Your task to perform on an android device: Open Amazon Image 0: 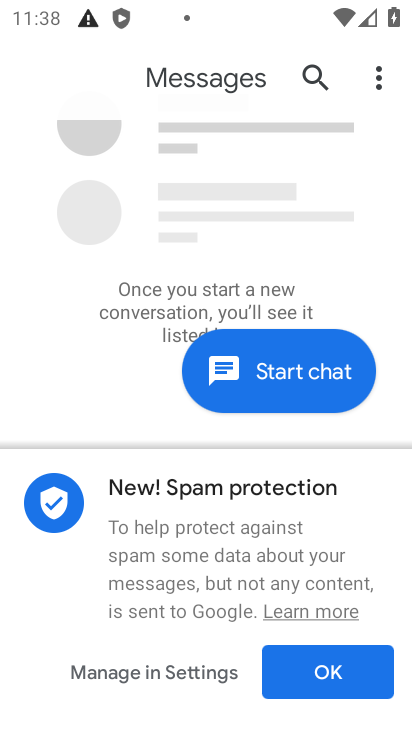
Step 0: click (252, 559)
Your task to perform on an android device: Open Amazon Image 1: 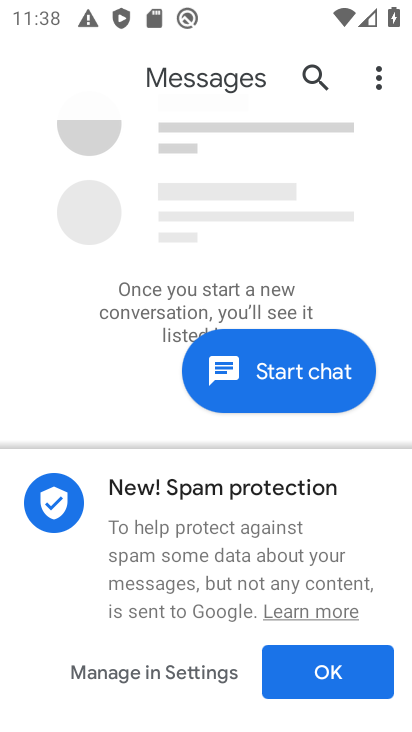
Step 1: press home button
Your task to perform on an android device: Open Amazon Image 2: 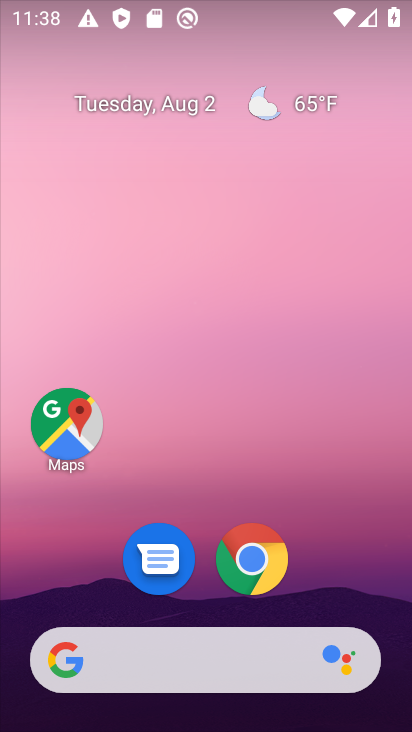
Step 2: click (248, 559)
Your task to perform on an android device: Open Amazon Image 3: 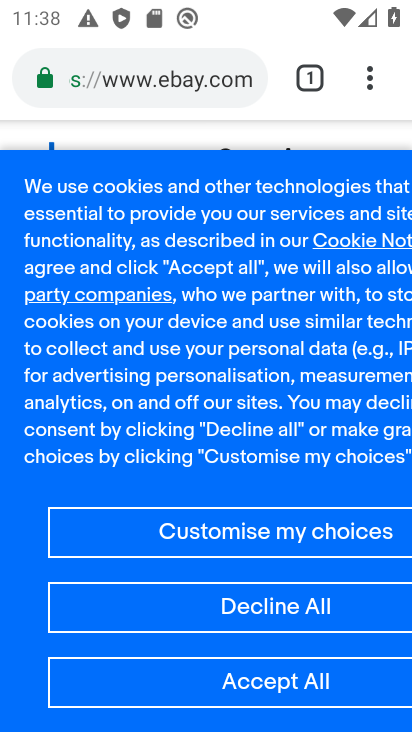
Step 3: click (369, 85)
Your task to perform on an android device: Open Amazon Image 4: 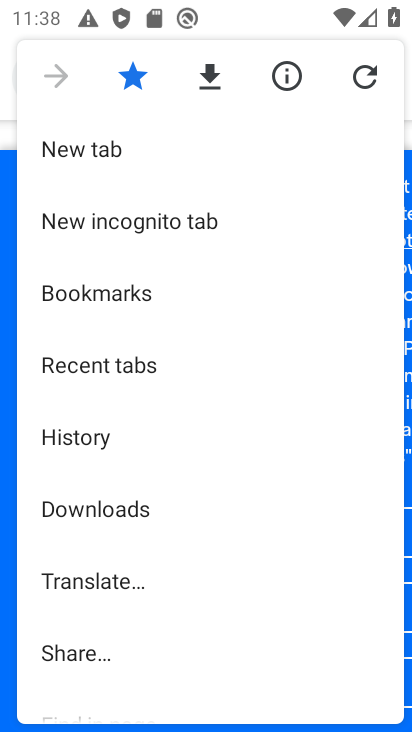
Step 4: click (98, 142)
Your task to perform on an android device: Open Amazon Image 5: 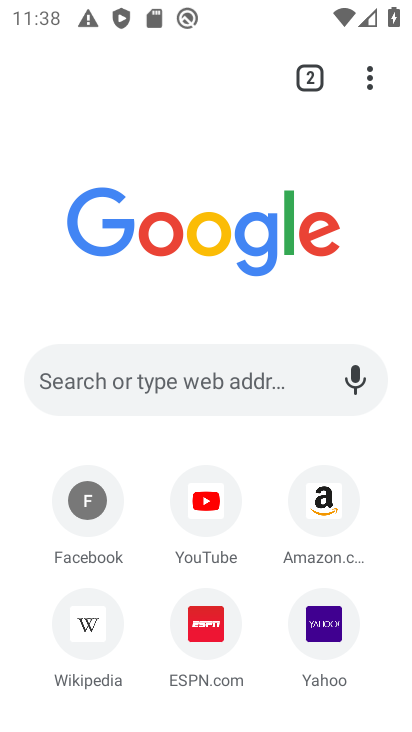
Step 5: click (327, 506)
Your task to perform on an android device: Open Amazon Image 6: 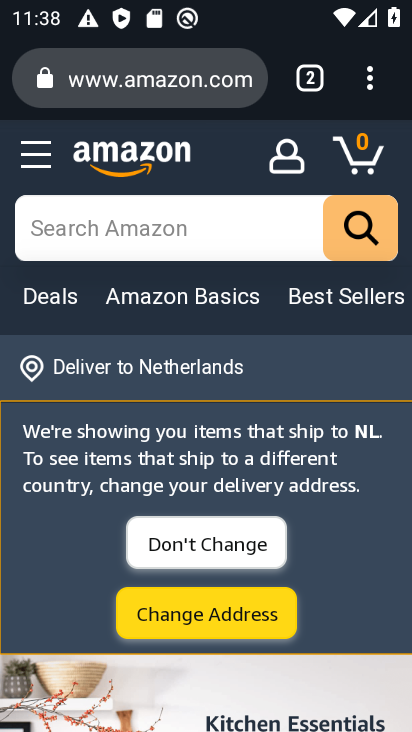
Step 6: task complete